Your task to perform on an android device: Open ESPN.com Image 0: 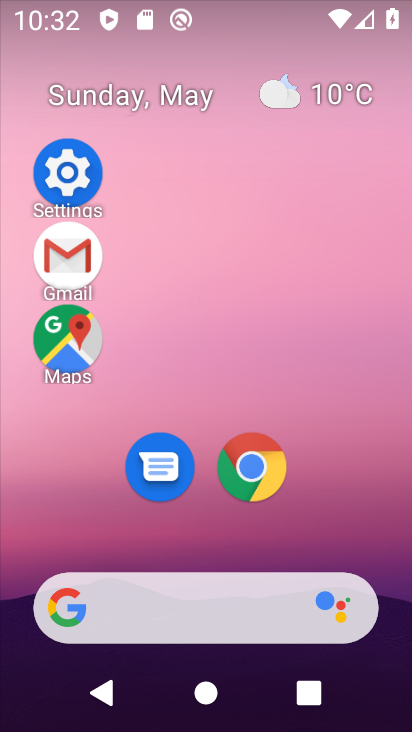
Step 0: click (297, 473)
Your task to perform on an android device: Open ESPN.com Image 1: 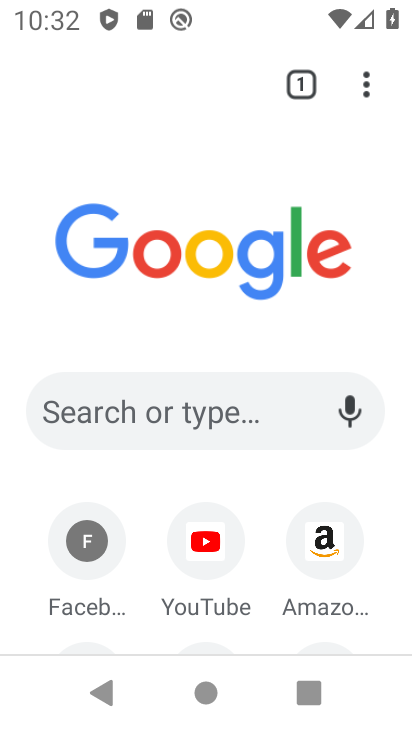
Step 1: drag from (297, 473) to (294, 62)
Your task to perform on an android device: Open ESPN.com Image 2: 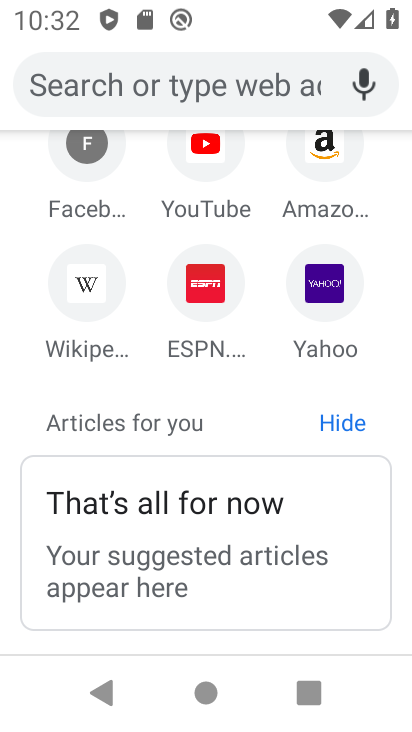
Step 2: click (213, 273)
Your task to perform on an android device: Open ESPN.com Image 3: 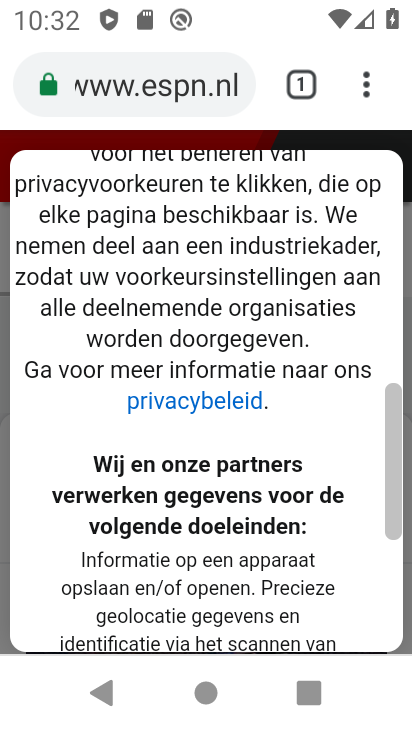
Step 3: task complete